Your task to perform on an android device: toggle javascript in the chrome app Image 0: 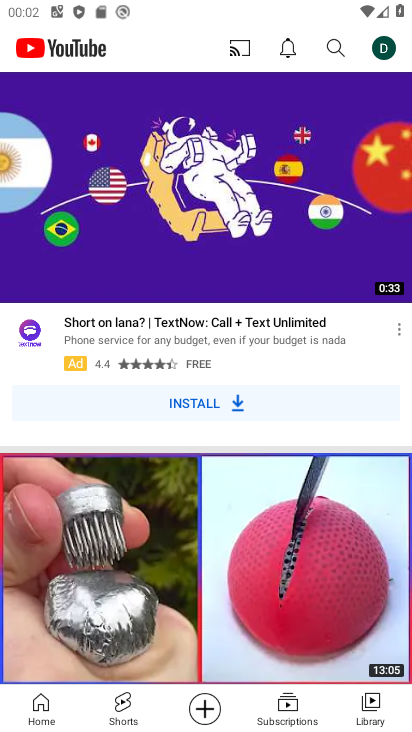
Step 0: press home button
Your task to perform on an android device: toggle javascript in the chrome app Image 1: 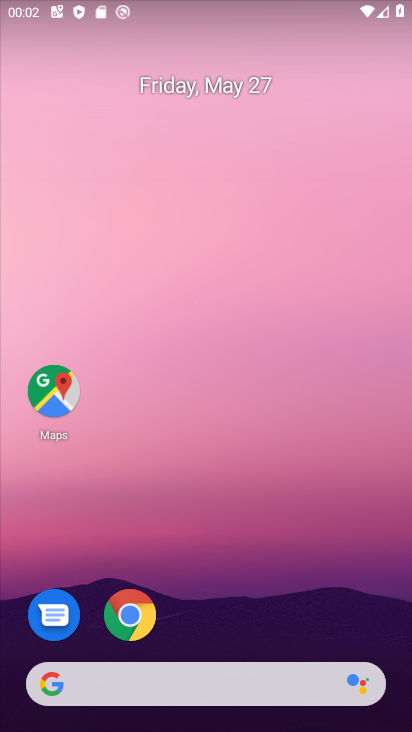
Step 1: click (139, 602)
Your task to perform on an android device: toggle javascript in the chrome app Image 2: 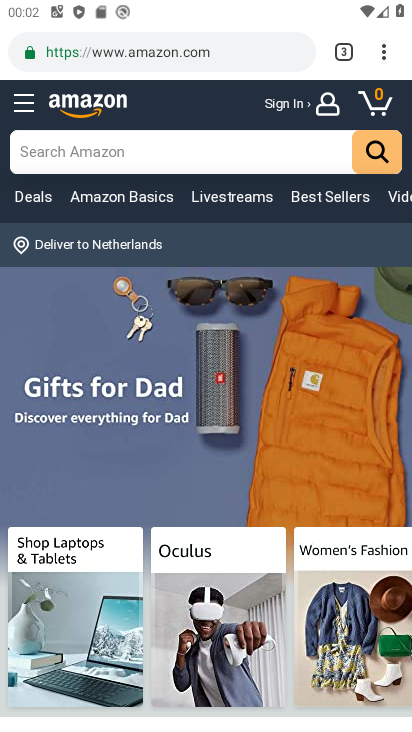
Step 2: drag from (381, 55) to (204, 627)
Your task to perform on an android device: toggle javascript in the chrome app Image 3: 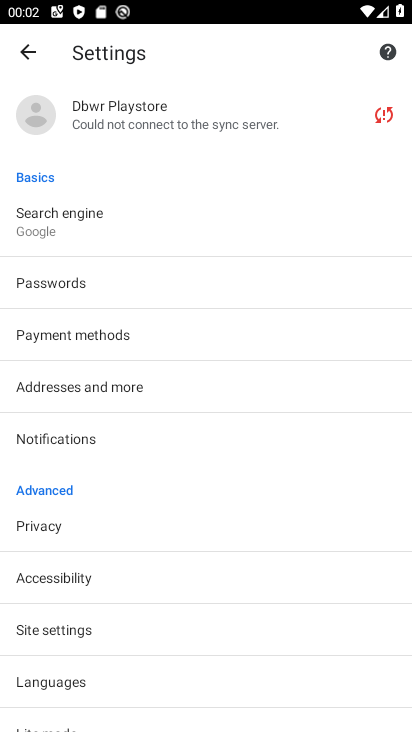
Step 3: click (84, 625)
Your task to perform on an android device: toggle javascript in the chrome app Image 4: 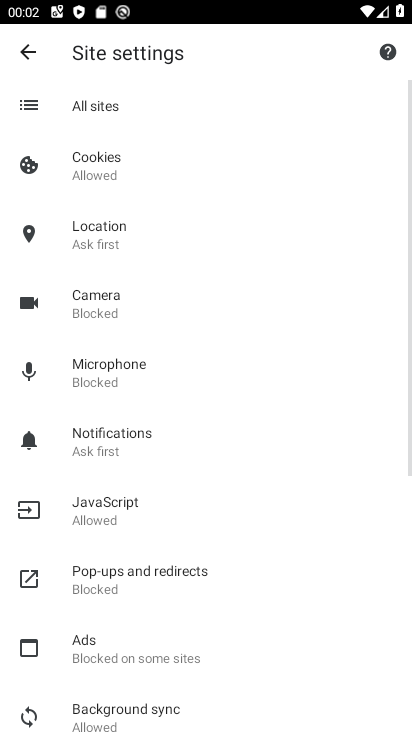
Step 4: click (112, 529)
Your task to perform on an android device: toggle javascript in the chrome app Image 5: 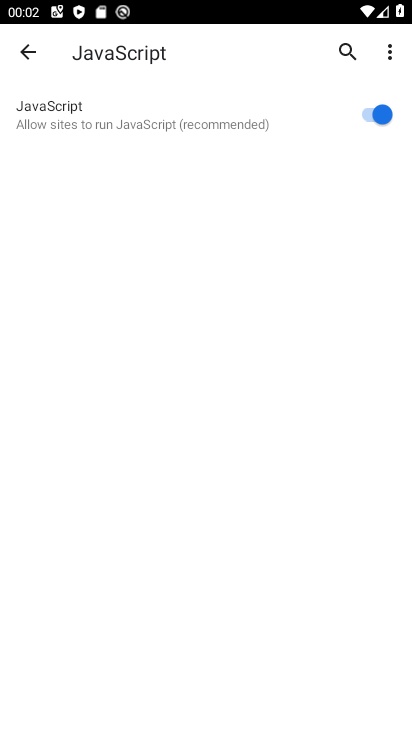
Step 5: click (330, 156)
Your task to perform on an android device: toggle javascript in the chrome app Image 6: 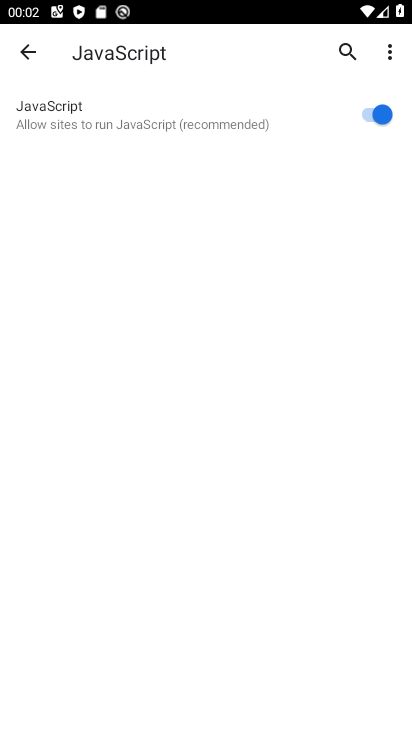
Step 6: click (344, 133)
Your task to perform on an android device: toggle javascript in the chrome app Image 7: 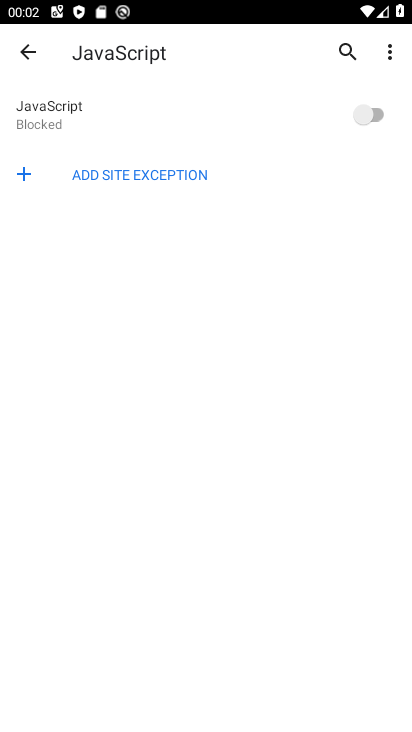
Step 7: task complete